Your task to perform on an android device: stop showing notifications on the lock screen Image 0: 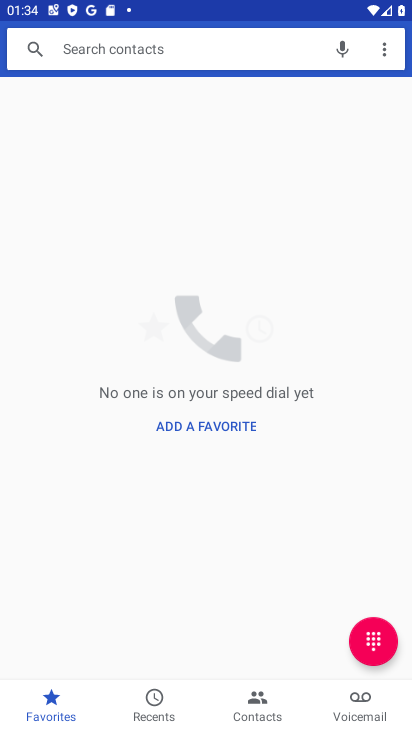
Step 0: press home button
Your task to perform on an android device: stop showing notifications on the lock screen Image 1: 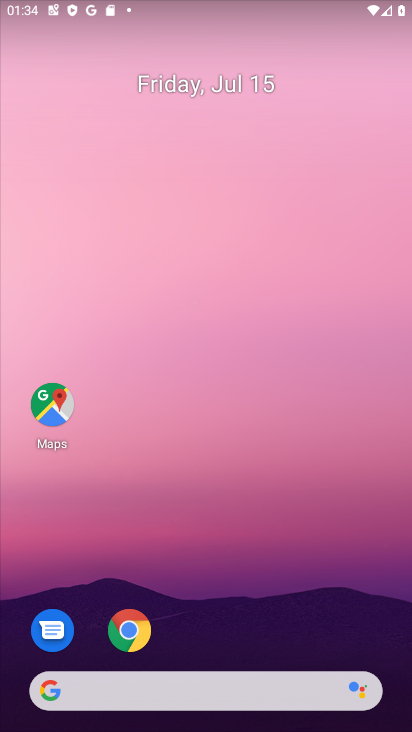
Step 1: drag from (278, 623) to (282, 164)
Your task to perform on an android device: stop showing notifications on the lock screen Image 2: 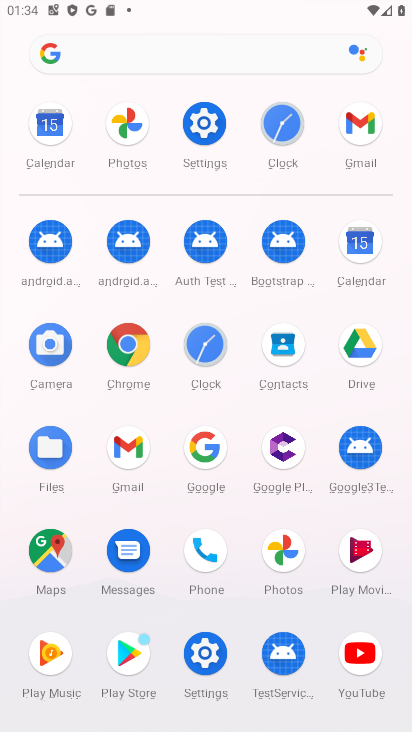
Step 2: click (197, 153)
Your task to perform on an android device: stop showing notifications on the lock screen Image 3: 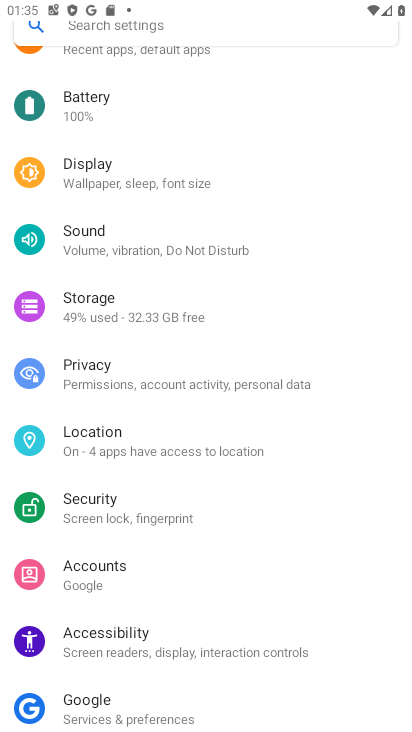
Step 3: click (142, 447)
Your task to perform on an android device: stop showing notifications on the lock screen Image 4: 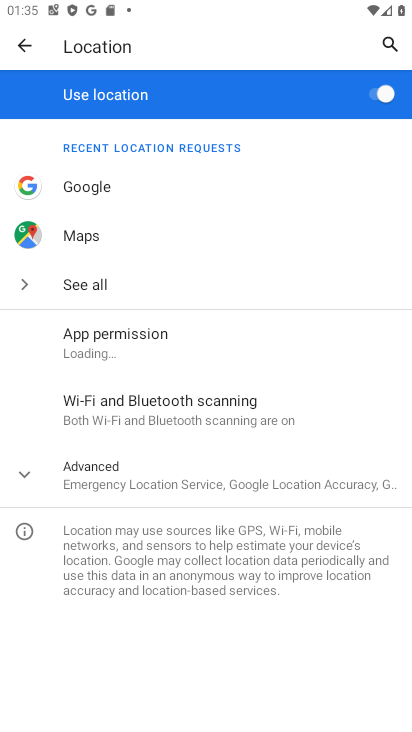
Step 4: click (103, 457)
Your task to perform on an android device: stop showing notifications on the lock screen Image 5: 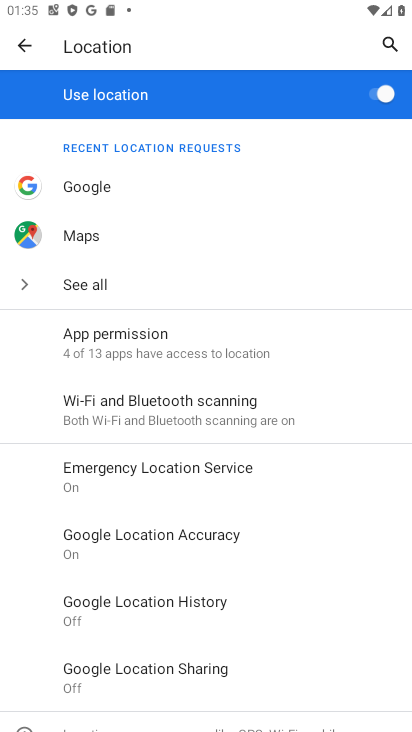
Step 5: task complete